Your task to perform on an android device: turn off improve location accuracy Image 0: 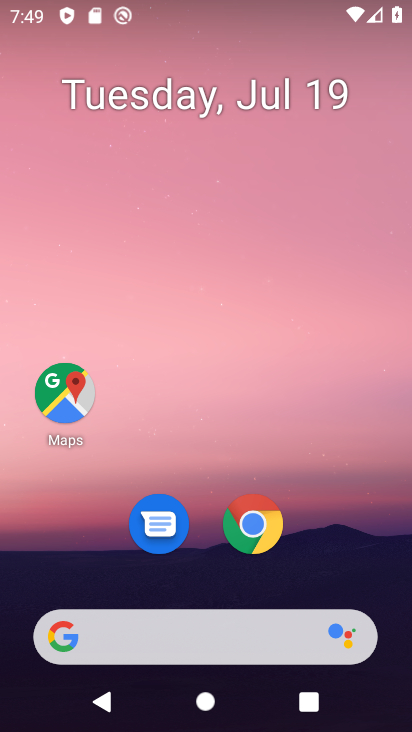
Step 0: drag from (306, 546) to (350, 95)
Your task to perform on an android device: turn off improve location accuracy Image 1: 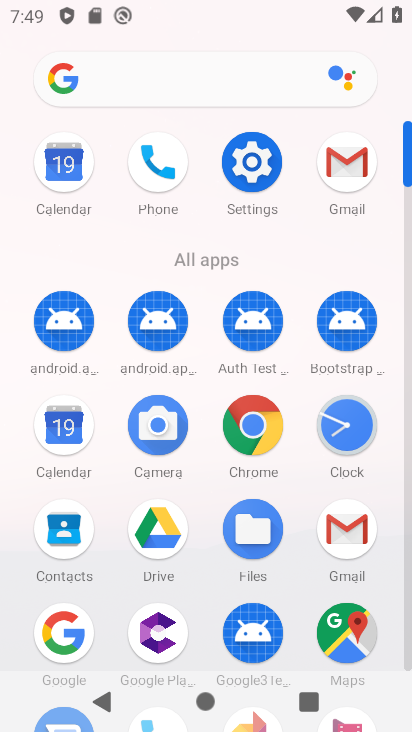
Step 1: click (264, 161)
Your task to perform on an android device: turn off improve location accuracy Image 2: 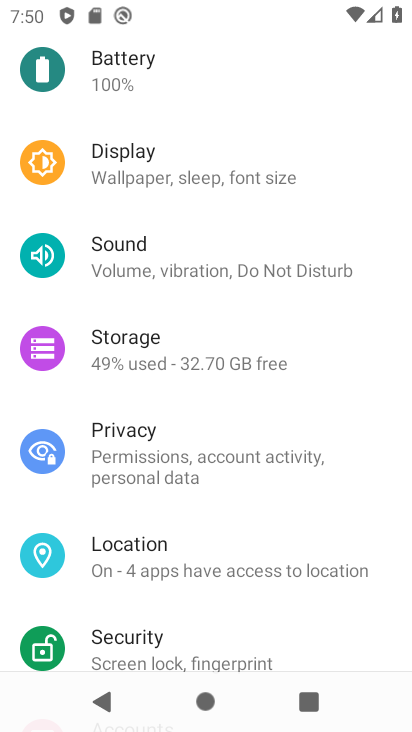
Step 2: click (227, 565)
Your task to perform on an android device: turn off improve location accuracy Image 3: 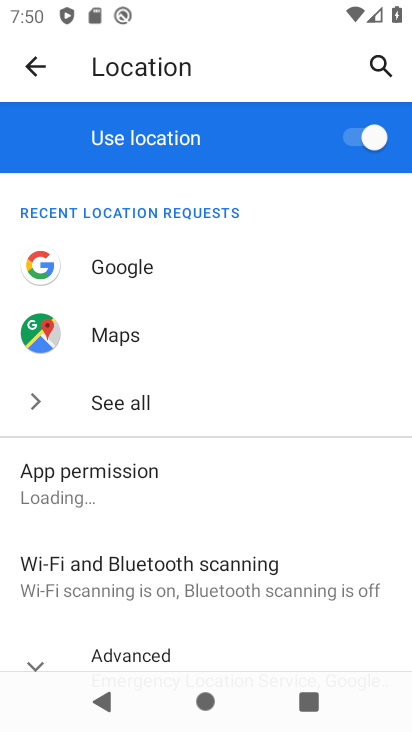
Step 3: drag from (216, 518) to (266, 192)
Your task to perform on an android device: turn off improve location accuracy Image 4: 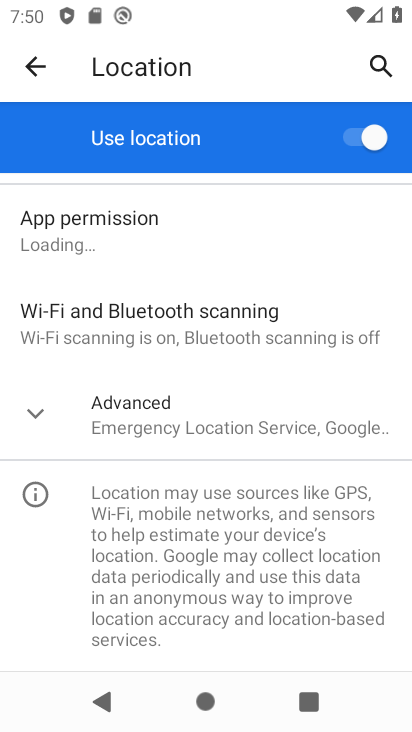
Step 4: click (28, 402)
Your task to perform on an android device: turn off improve location accuracy Image 5: 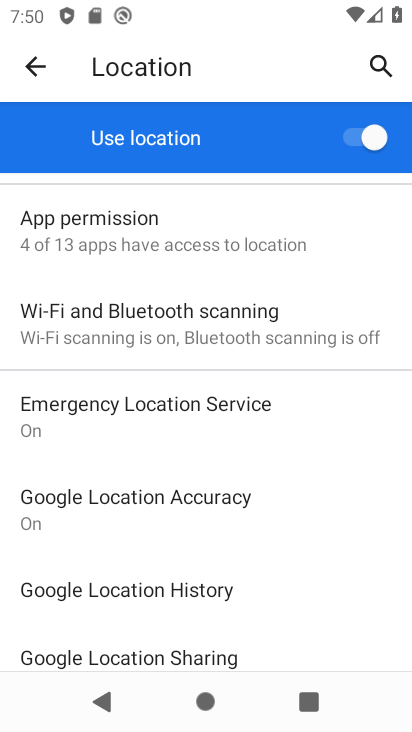
Step 5: click (99, 511)
Your task to perform on an android device: turn off improve location accuracy Image 6: 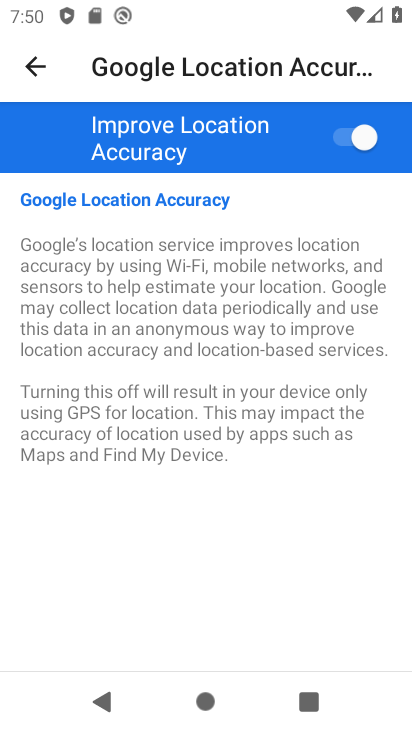
Step 6: task complete